Your task to perform on an android device: Open network settings Image 0: 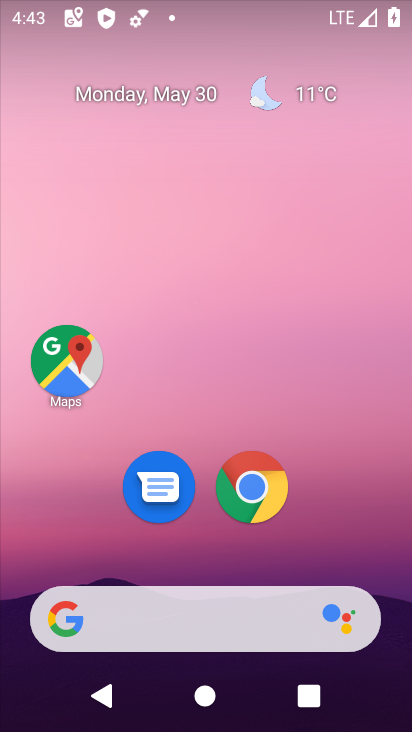
Step 0: drag from (395, 609) to (311, 89)
Your task to perform on an android device: Open network settings Image 1: 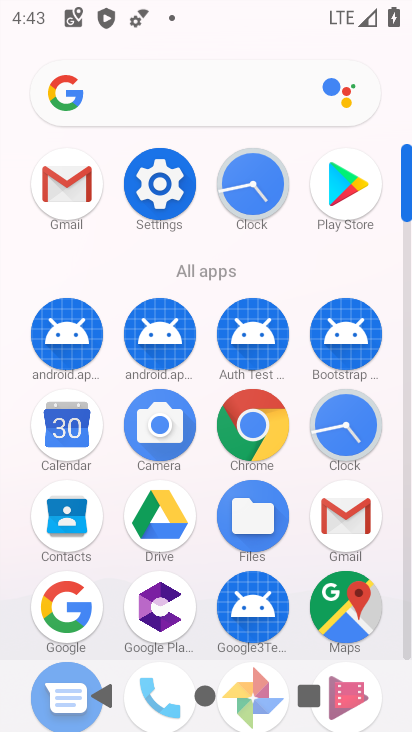
Step 1: click (410, 642)
Your task to perform on an android device: Open network settings Image 2: 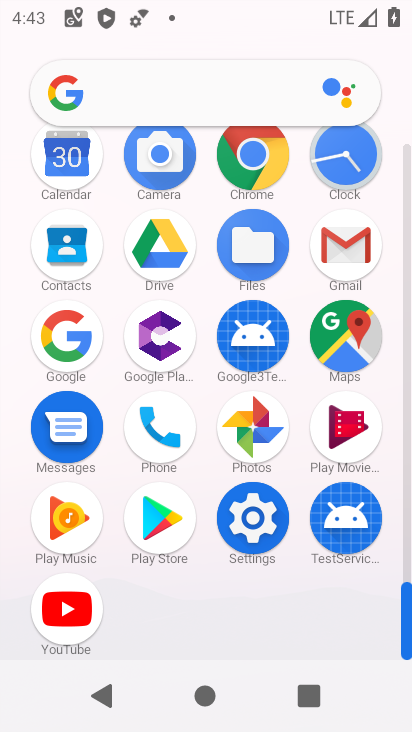
Step 2: click (255, 517)
Your task to perform on an android device: Open network settings Image 3: 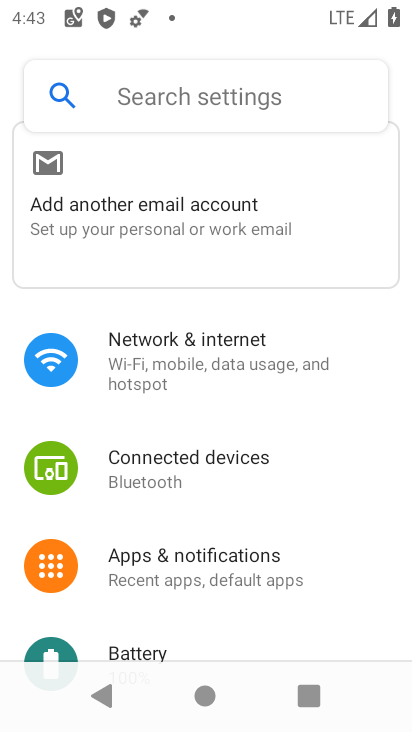
Step 3: click (154, 336)
Your task to perform on an android device: Open network settings Image 4: 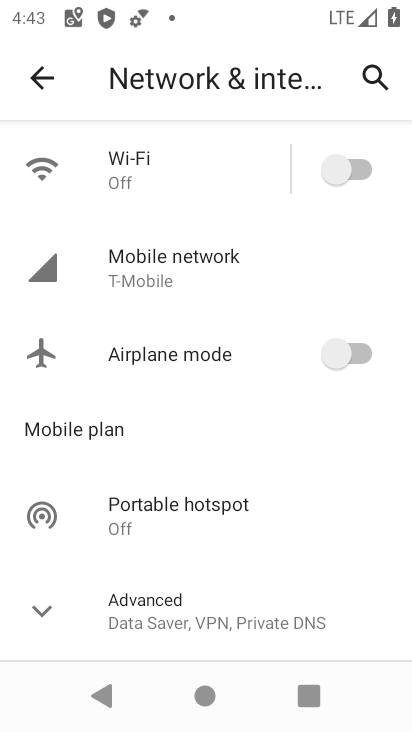
Step 4: click (143, 256)
Your task to perform on an android device: Open network settings Image 5: 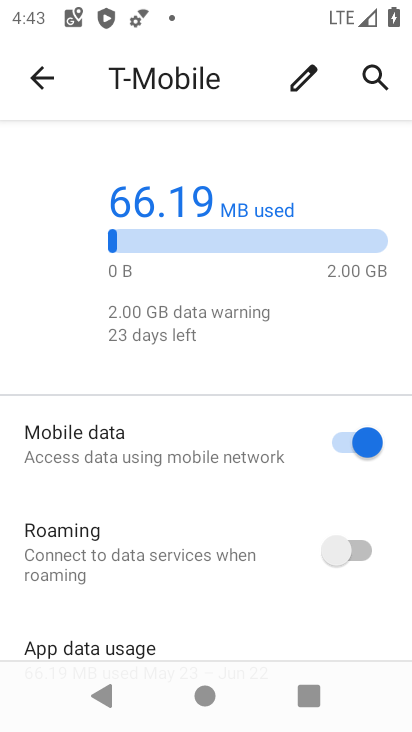
Step 5: task complete